Your task to perform on an android device: turn off smart reply in the gmail app Image 0: 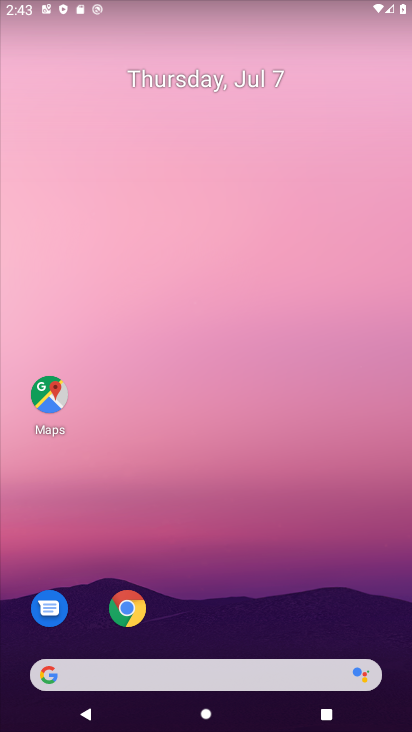
Step 0: click (268, 44)
Your task to perform on an android device: turn off smart reply in the gmail app Image 1: 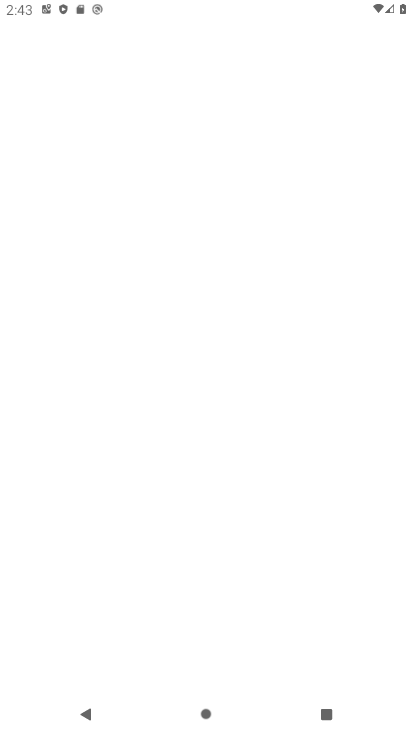
Step 1: press home button
Your task to perform on an android device: turn off smart reply in the gmail app Image 2: 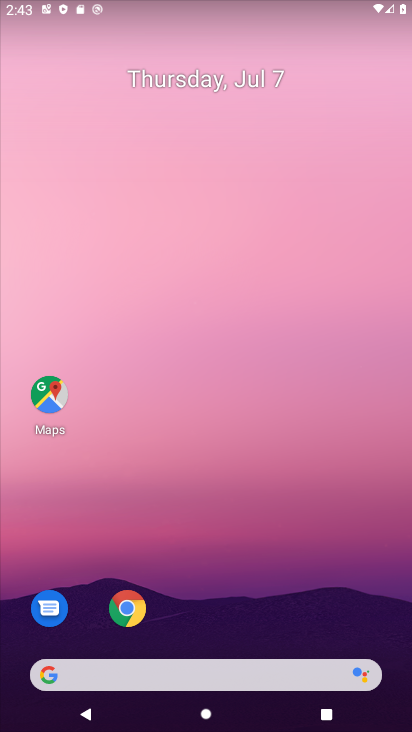
Step 2: drag from (387, 683) to (310, 67)
Your task to perform on an android device: turn off smart reply in the gmail app Image 3: 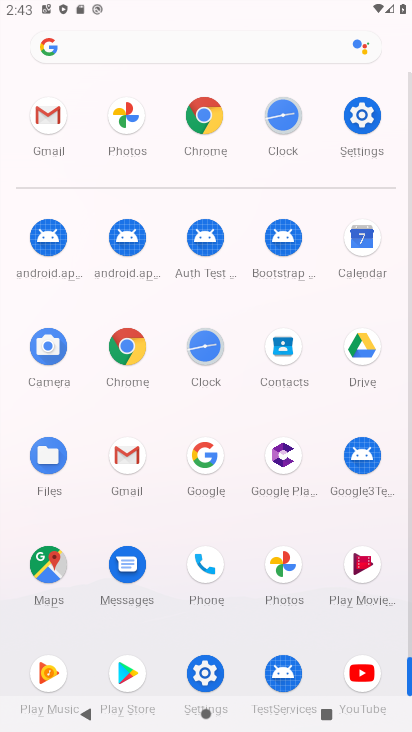
Step 3: click (124, 456)
Your task to perform on an android device: turn off smart reply in the gmail app Image 4: 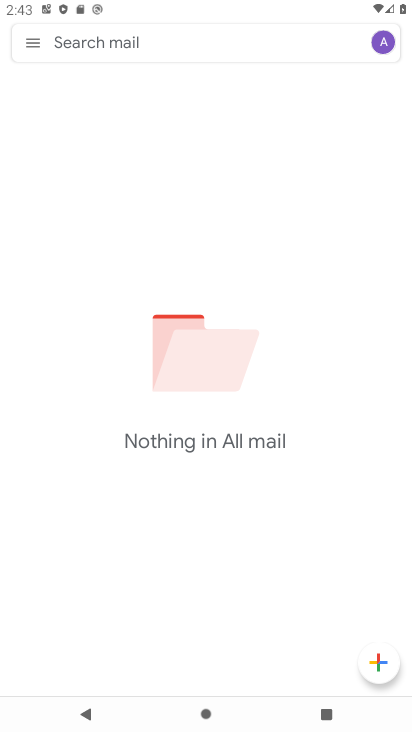
Step 4: click (31, 42)
Your task to perform on an android device: turn off smart reply in the gmail app Image 5: 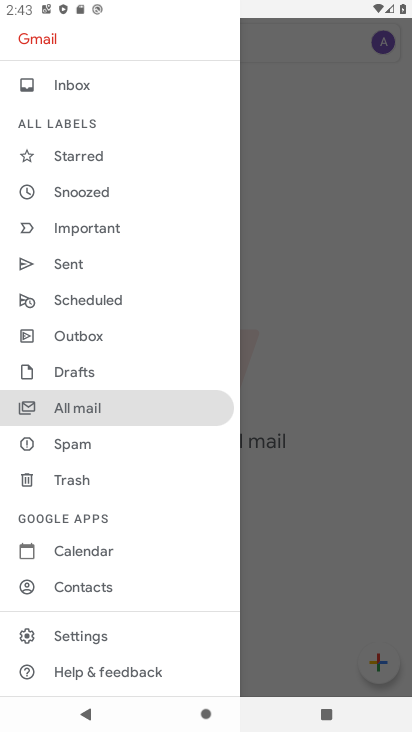
Step 5: click (84, 631)
Your task to perform on an android device: turn off smart reply in the gmail app Image 6: 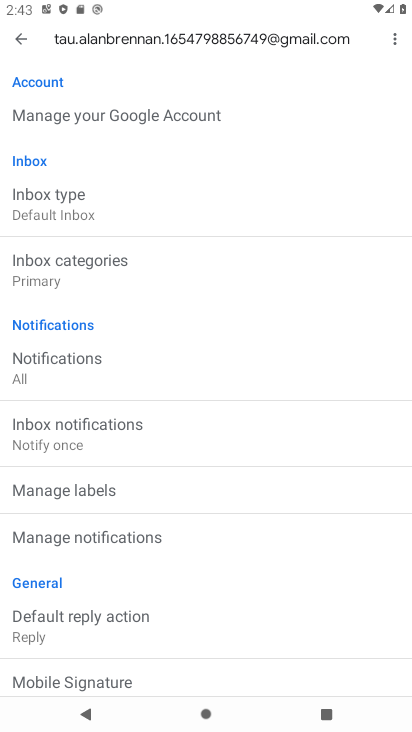
Step 6: drag from (124, 585) to (131, 129)
Your task to perform on an android device: turn off smart reply in the gmail app Image 7: 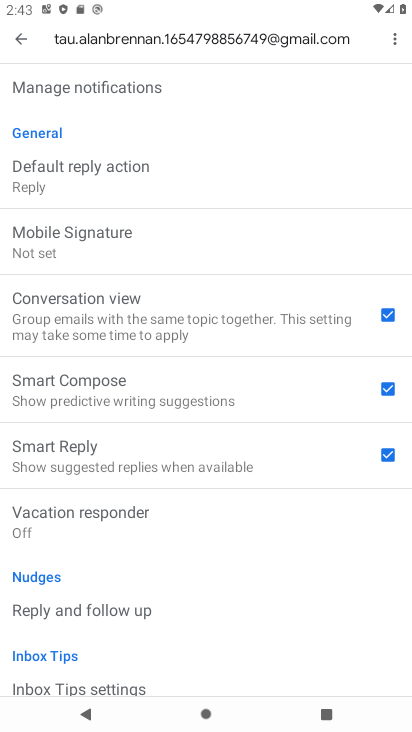
Step 7: click (388, 455)
Your task to perform on an android device: turn off smart reply in the gmail app Image 8: 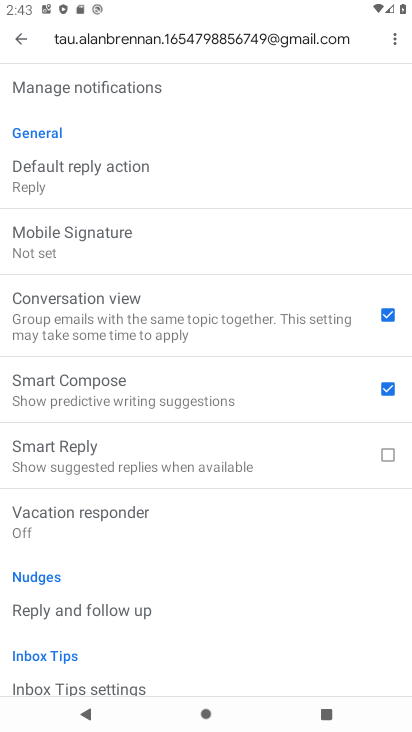
Step 8: task complete